Your task to perform on an android device: turn off picture-in-picture Image 0: 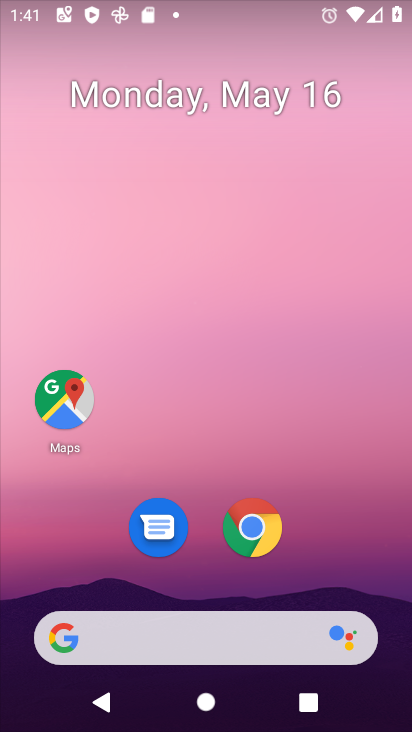
Step 0: drag from (365, 559) to (377, 79)
Your task to perform on an android device: turn off picture-in-picture Image 1: 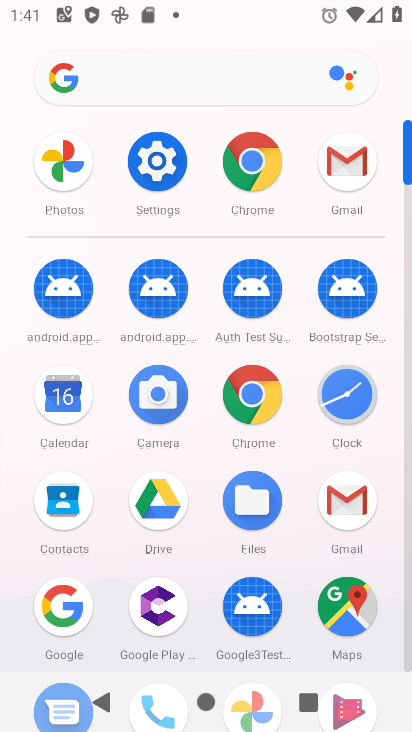
Step 1: click (170, 157)
Your task to perform on an android device: turn off picture-in-picture Image 2: 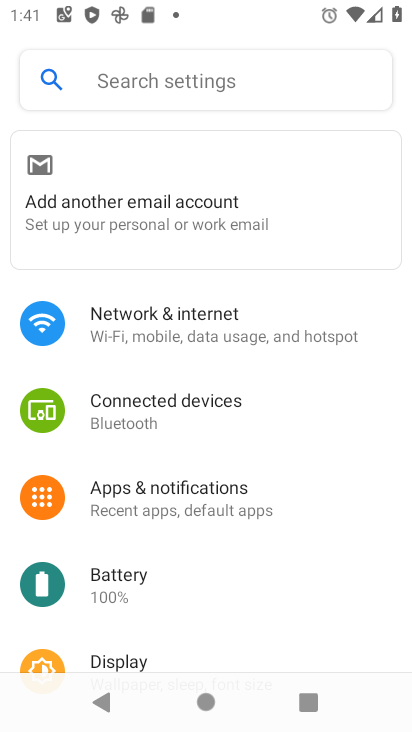
Step 2: drag from (156, 543) to (245, 184)
Your task to perform on an android device: turn off picture-in-picture Image 3: 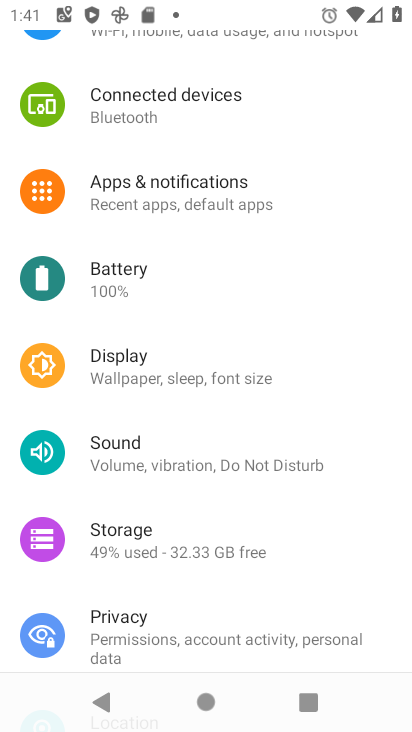
Step 3: drag from (245, 498) to (319, 227)
Your task to perform on an android device: turn off picture-in-picture Image 4: 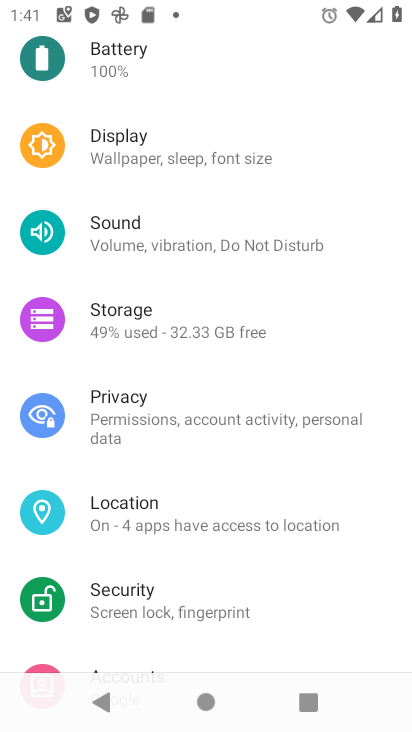
Step 4: drag from (235, 562) to (320, 261)
Your task to perform on an android device: turn off picture-in-picture Image 5: 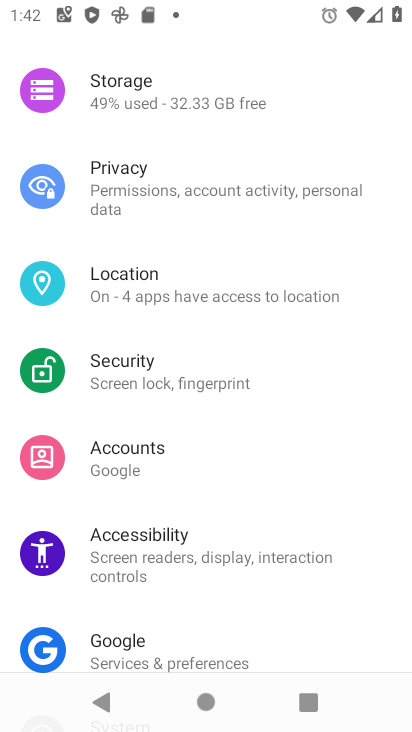
Step 5: click (225, 303)
Your task to perform on an android device: turn off picture-in-picture Image 6: 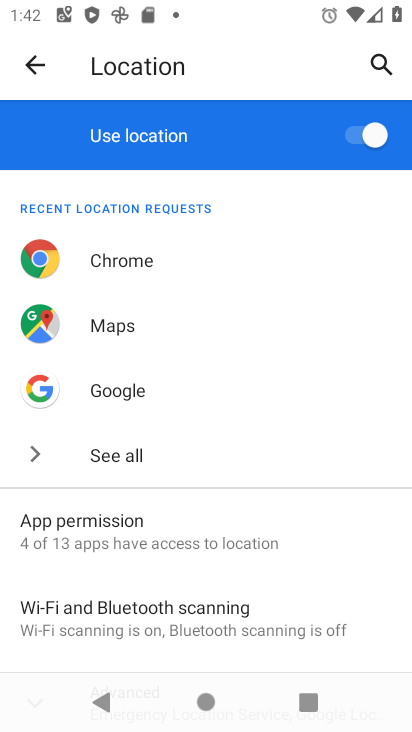
Step 6: click (39, 58)
Your task to perform on an android device: turn off picture-in-picture Image 7: 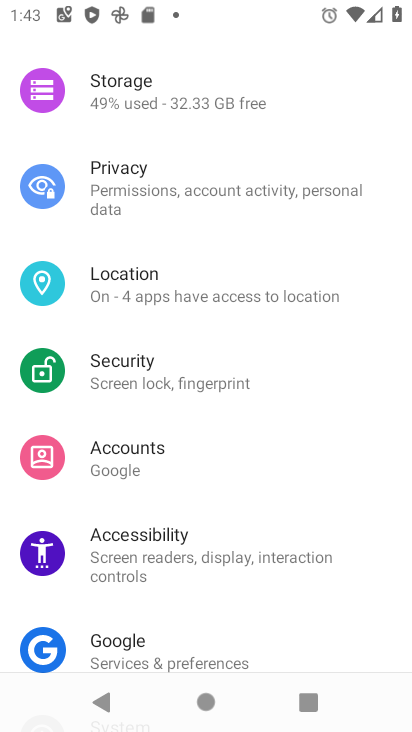
Step 7: drag from (107, 229) to (134, 496)
Your task to perform on an android device: turn off picture-in-picture Image 8: 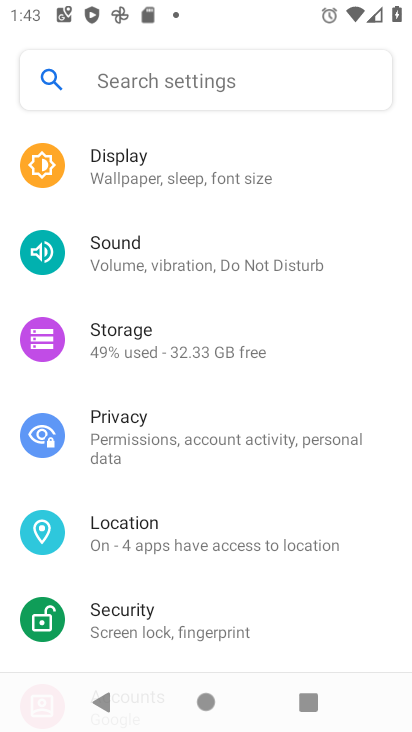
Step 8: drag from (144, 336) to (133, 524)
Your task to perform on an android device: turn off picture-in-picture Image 9: 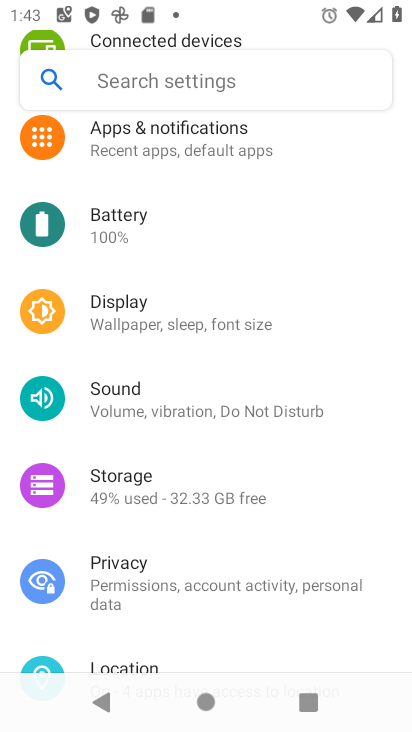
Step 9: click (269, 160)
Your task to perform on an android device: turn off picture-in-picture Image 10: 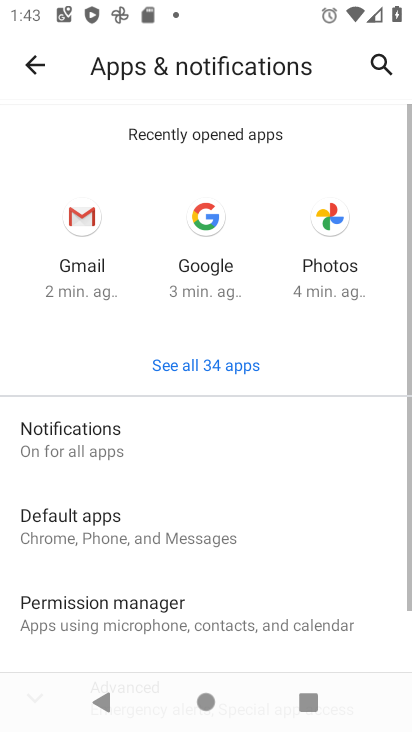
Step 10: drag from (215, 533) to (199, 206)
Your task to perform on an android device: turn off picture-in-picture Image 11: 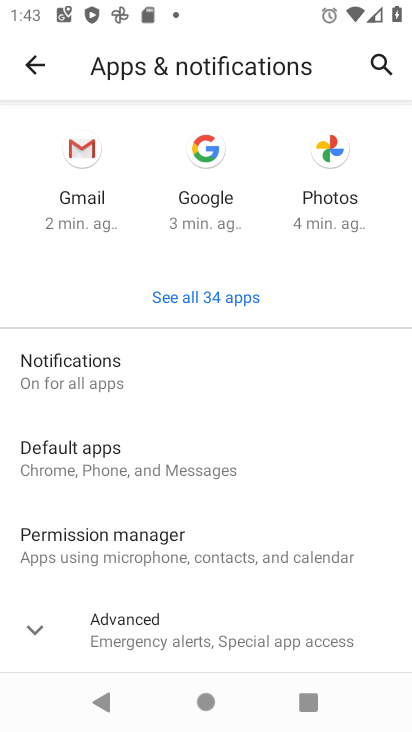
Step 11: click (246, 624)
Your task to perform on an android device: turn off picture-in-picture Image 12: 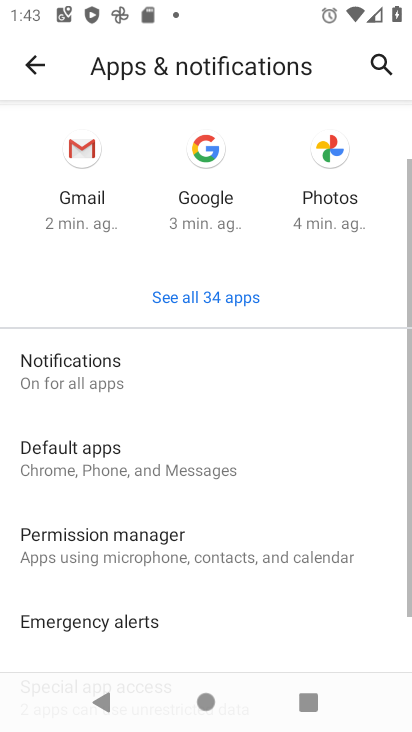
Step 12: drag from (246, 624) to (184, 171)
Your task to perform on an android device: turn off picture-in-picture Image 13: 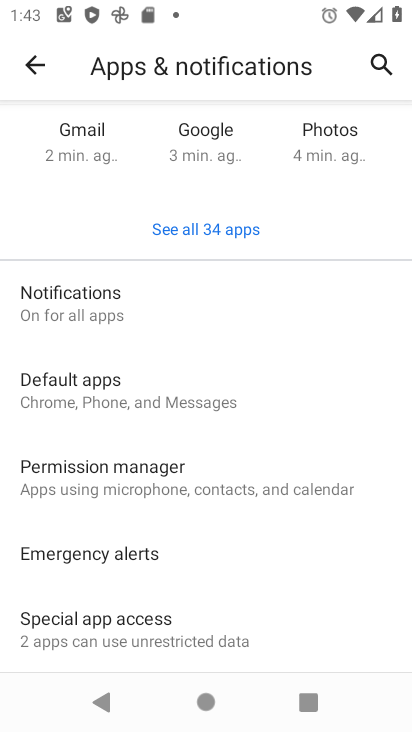
Step 13: click (231, 614)
Your task to perform on an android device: turn off picture-in-picture Image 14: 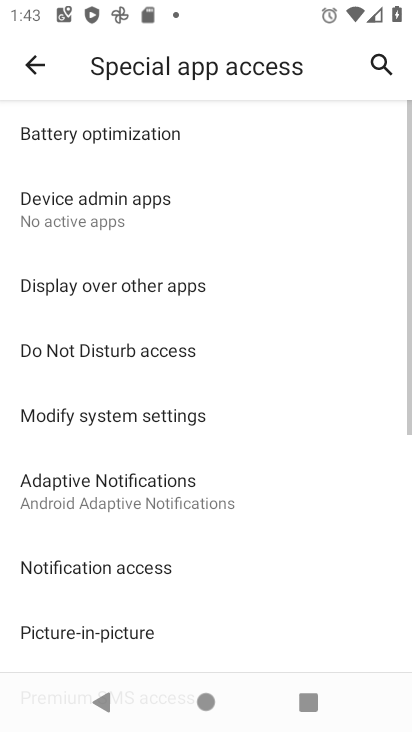
Step 14: drag from (256, 680) to (223, 373)
Your task to perform on an android device: turn off picture-in-picture Image 15: 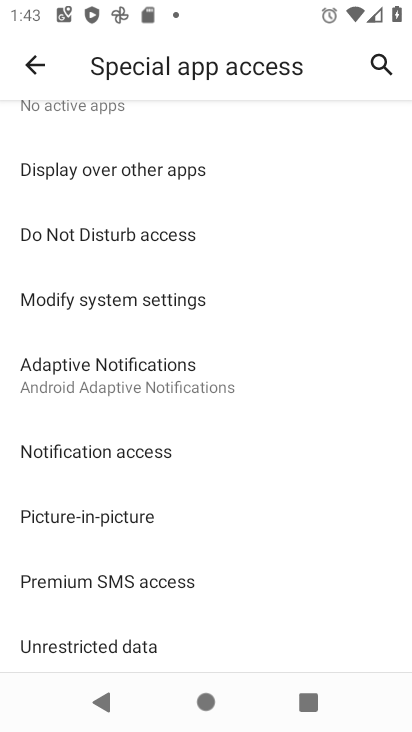
Step 15: click (250, 510)
Your task to perform on an android device: turn off picture-in-picture Image 16: 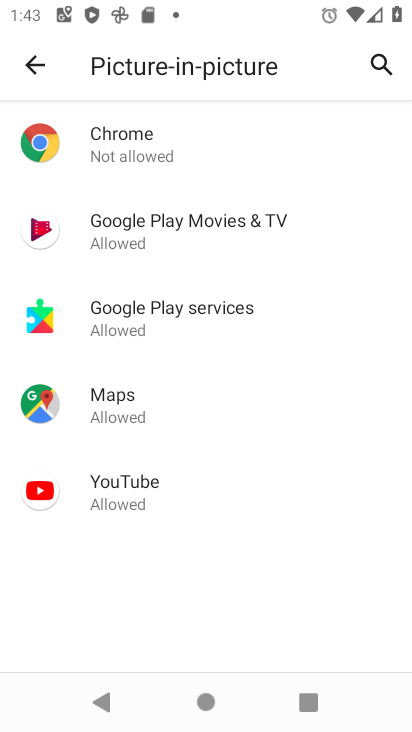
Step 16: click (262, 154)
Your task to perform on an android device: turn off picture-in-picture Image 17: 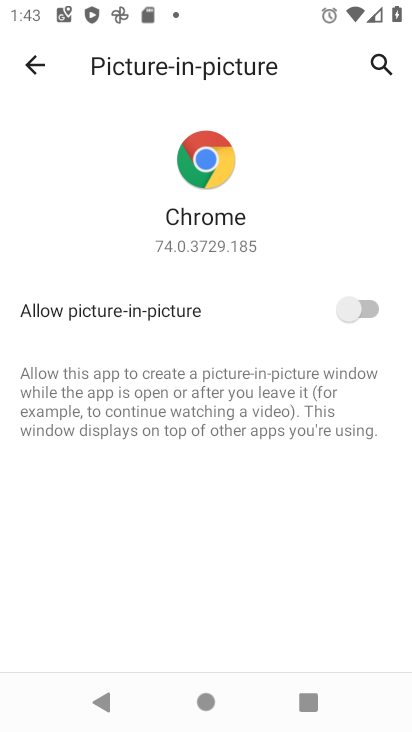
Step 17: click (10, 59)
Your task to perform on an android device: turn off picture-in-picture Image 18: 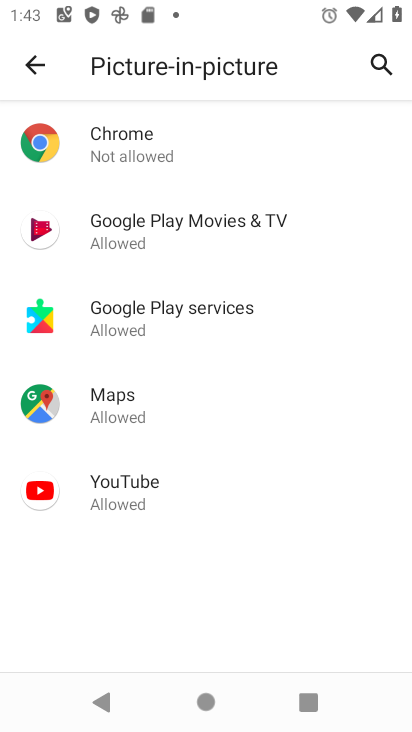
Step 18: click (306, 292)
Your task to perform on an android device: turn off picture-in-picture Image 19: 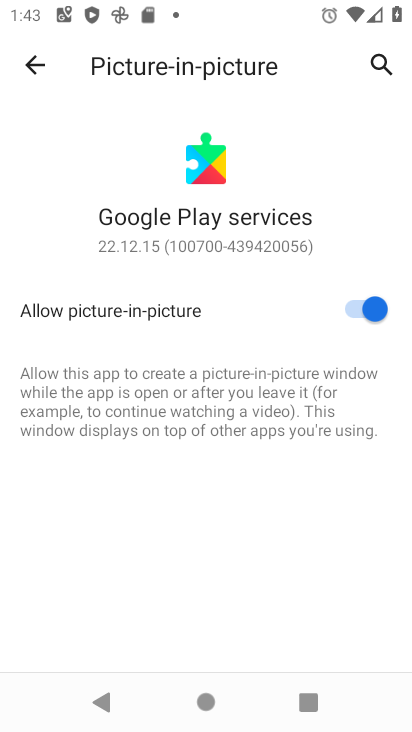
Step 19: click (330, 293)
Your task to perform on an android device: turn off picture-in-picture Image 20: 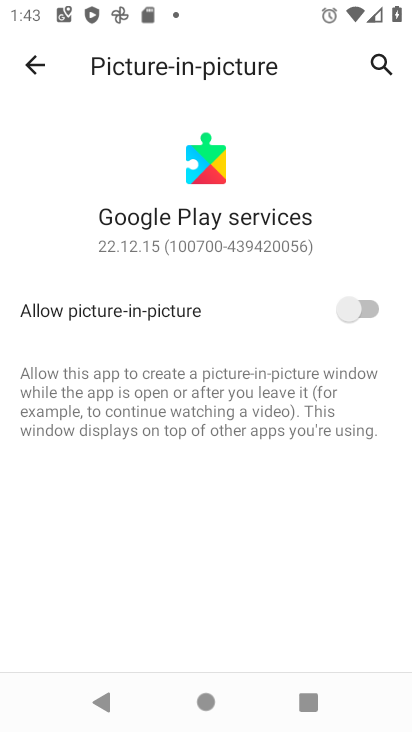
Step 20: task complete